Your task to perform on an android device: Show the shopping cart on costco.com. Search for razer huntsman on costco.com, select the first entry, and add it to the cart. Image 0: 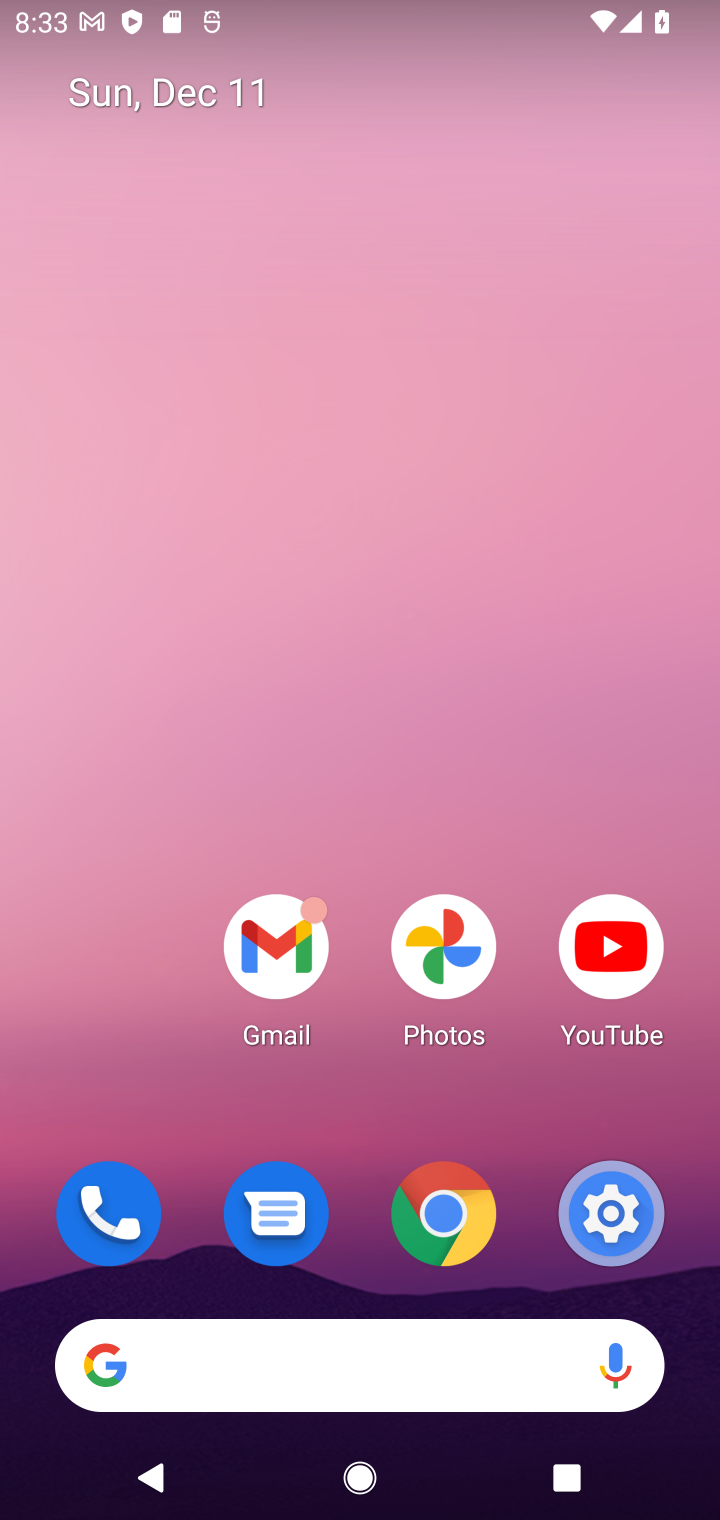
Step 0: click (320, 1372)
Your task to perform on an android device: Show the shopping cart on costco.com. Search for razer huntsman on costco.com, select the first entry, and add it to the cart. Image 1: 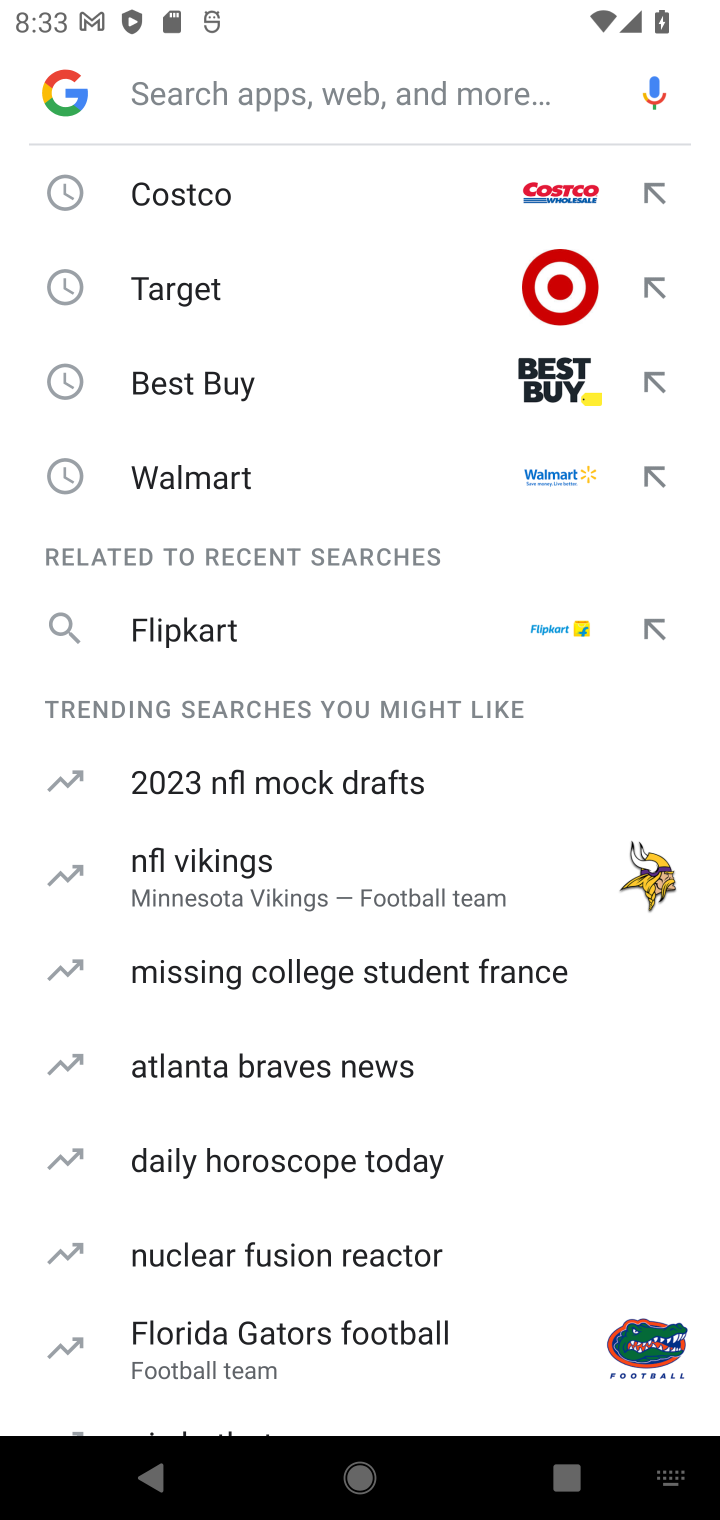
Step 1: type "costco.com"
Your task to perform on an android device: Show the shopping cart on costco.com. Search for razer huntsman on costco.com, select the first entry, and add it to the cart. Image 2: 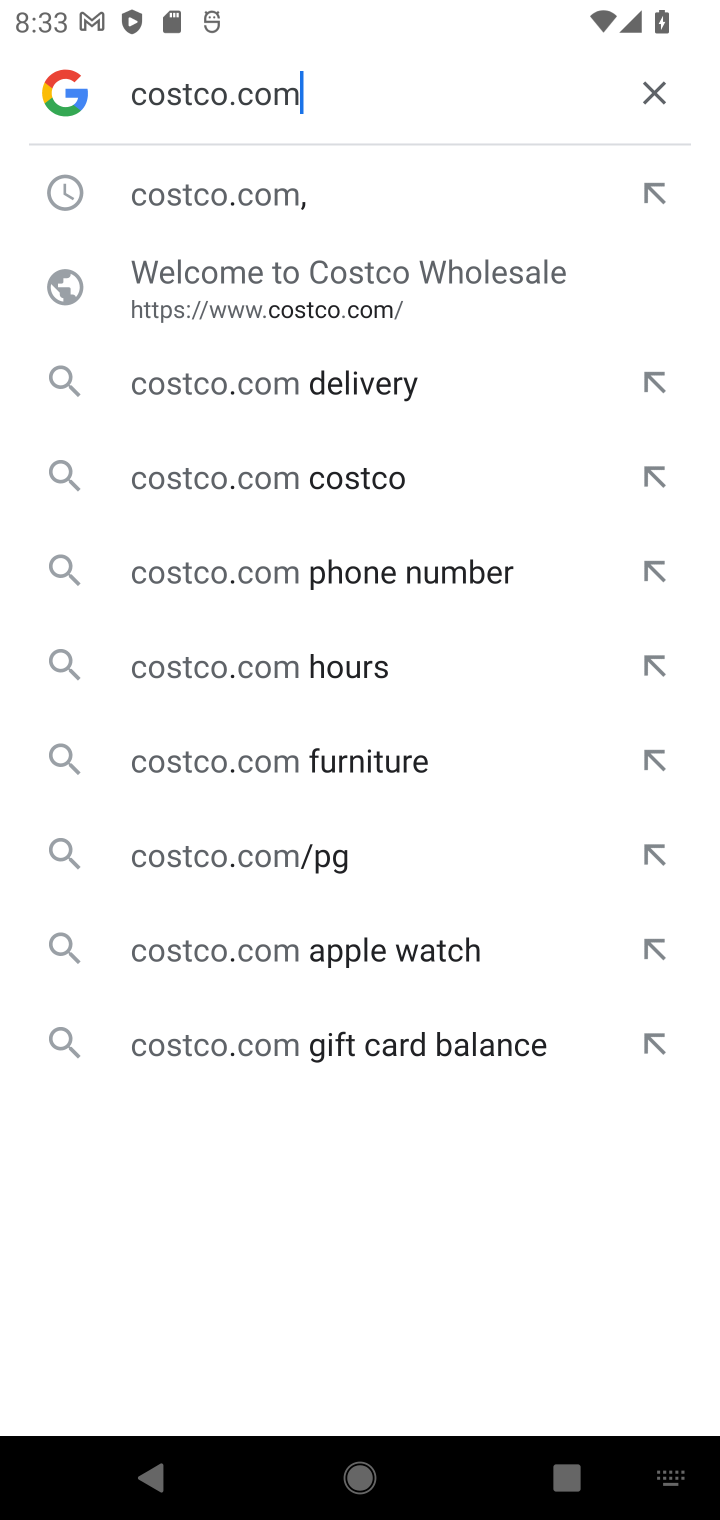
Step 2: click (296, 203)
Your task to perform on an android device: Show the shopping cart on costco.com. Search for razer huntsman on costco.com, select the first entry, and add it to the cart. Image 3: 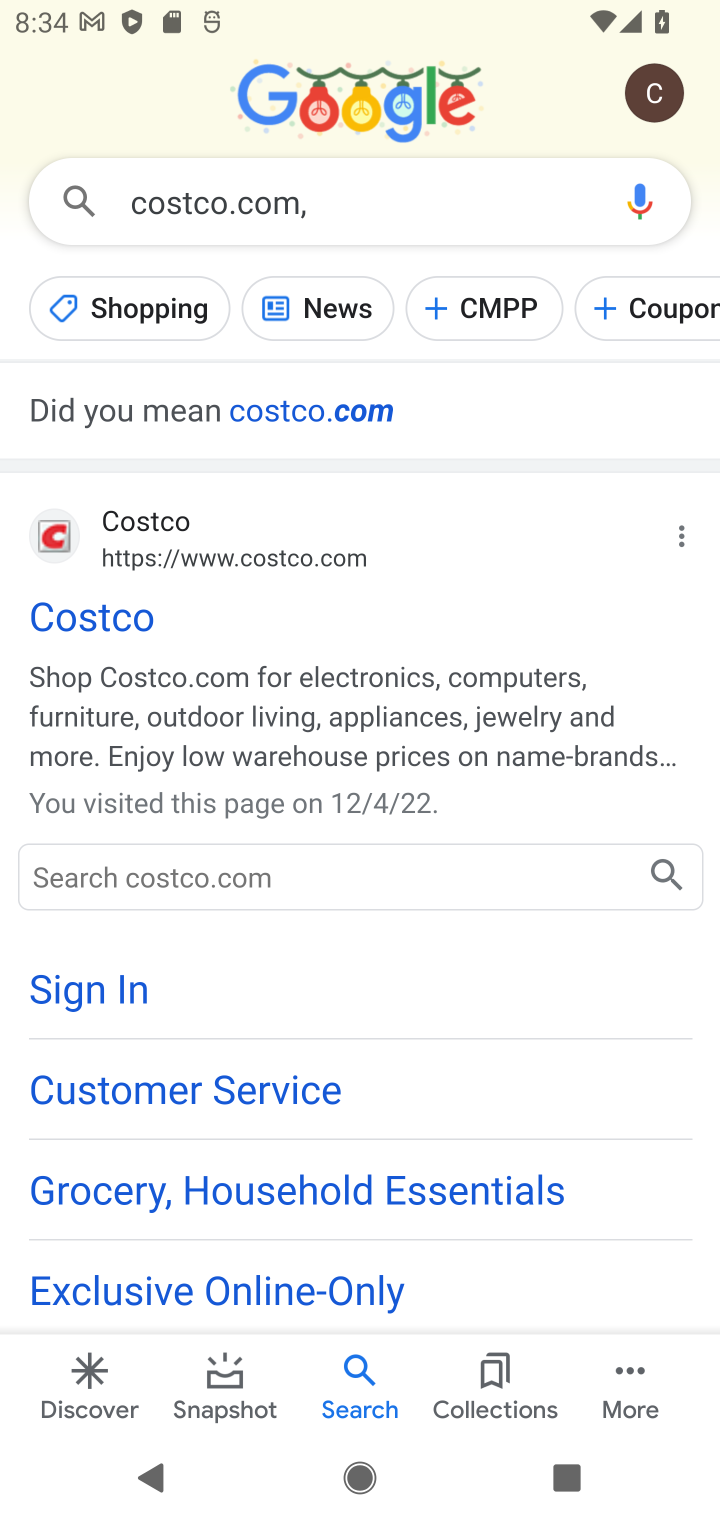
Step 3: click (93, 603)
Your task to perform on an android device: Show the shopping cart on costco.com. Search for razer huntsman on costco.com, select the first entry, and add it to the cart. Image 4: 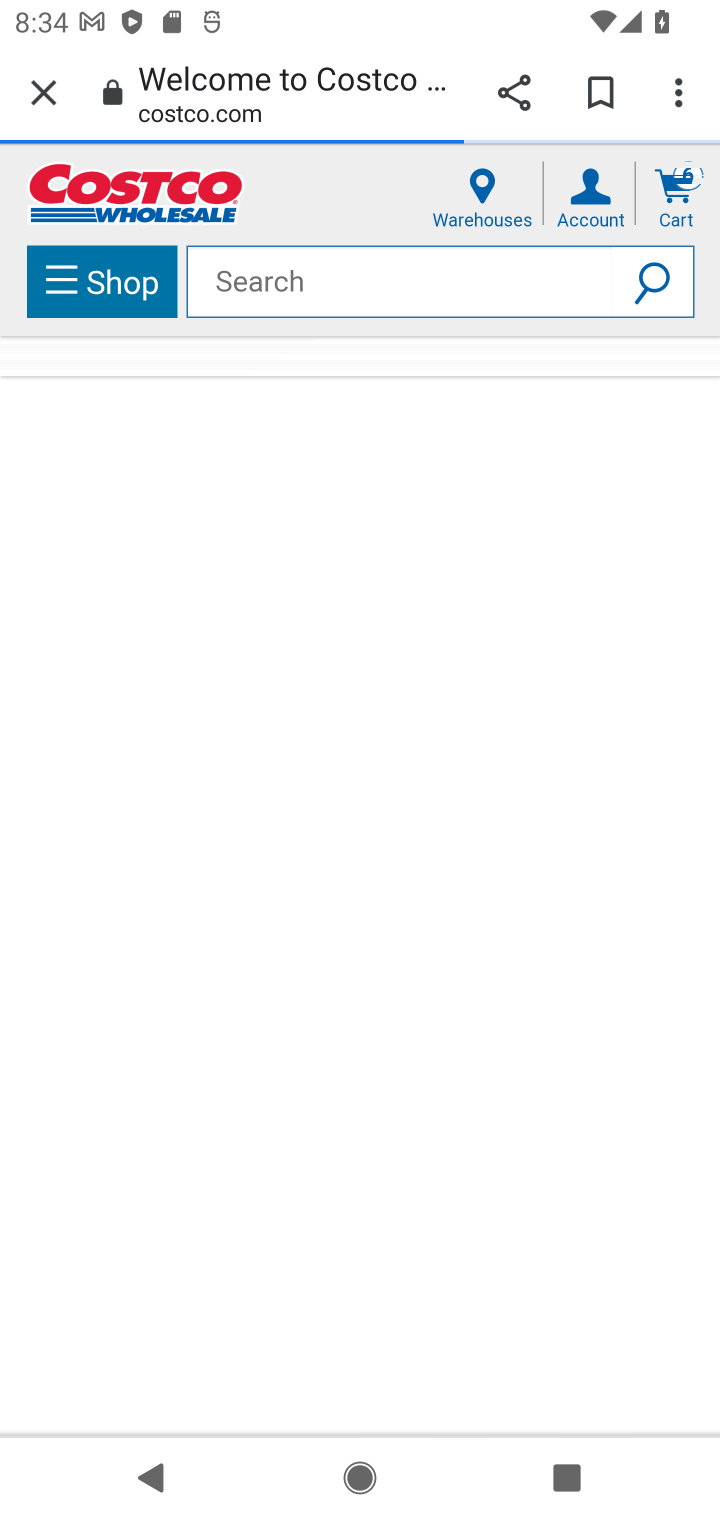
Step 4: click (377, 301)
Your task to perform on an android device: Show the shopping cart on costco.com. Search for razer huntsman on costco.com, select the first entry, and add it to the cart. Image 5: 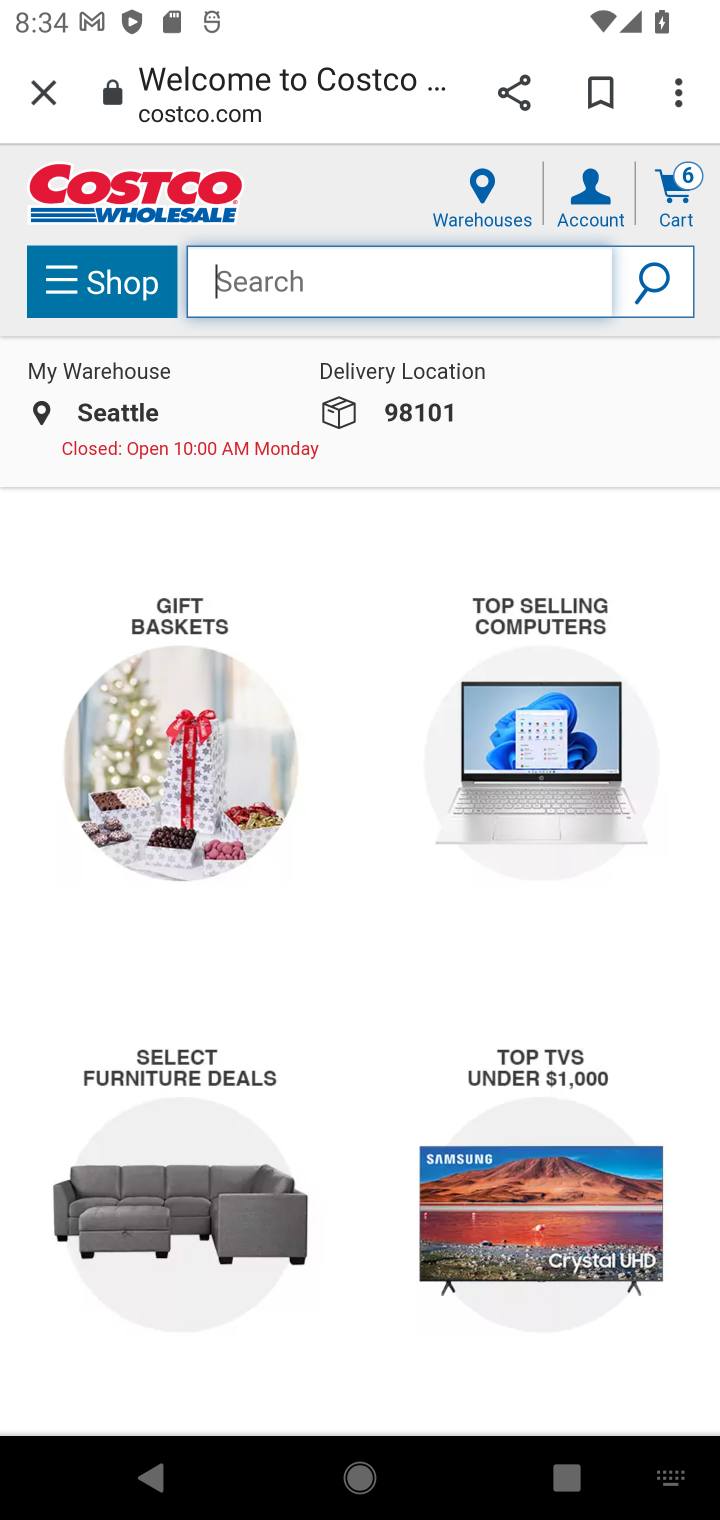
Step 5: type "razer huntsman"
Your task to perform on an android device: Show the shopping cart on costco.com. Search for razer huntsman on costco.com, select the first entry, and add it to the cart. Image 6: 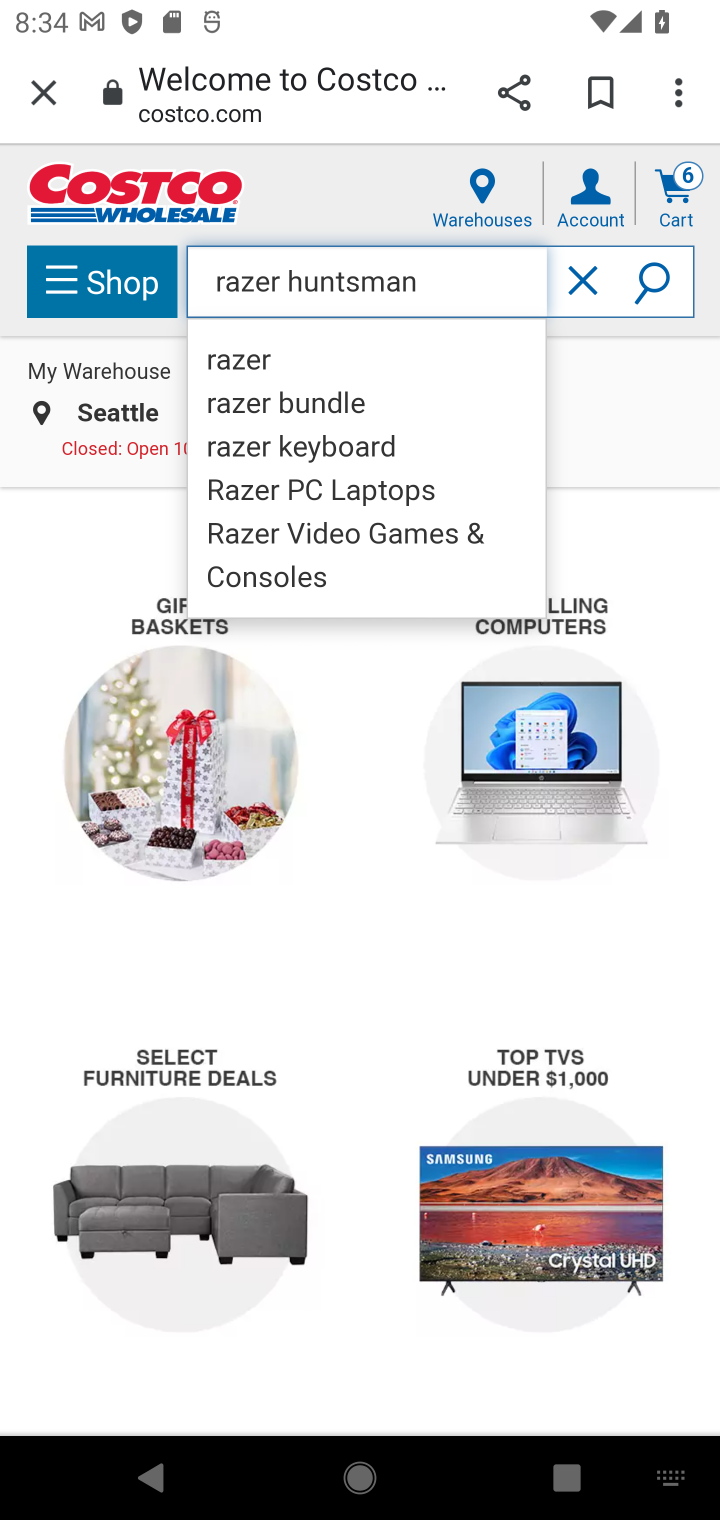
Step 6: click (635, 299)
Your task to perform on an android device: Show the shopping cart on costco.com. Search for razer huntsman on costco.com, select the first entry, and add it to the cart. Image 7: 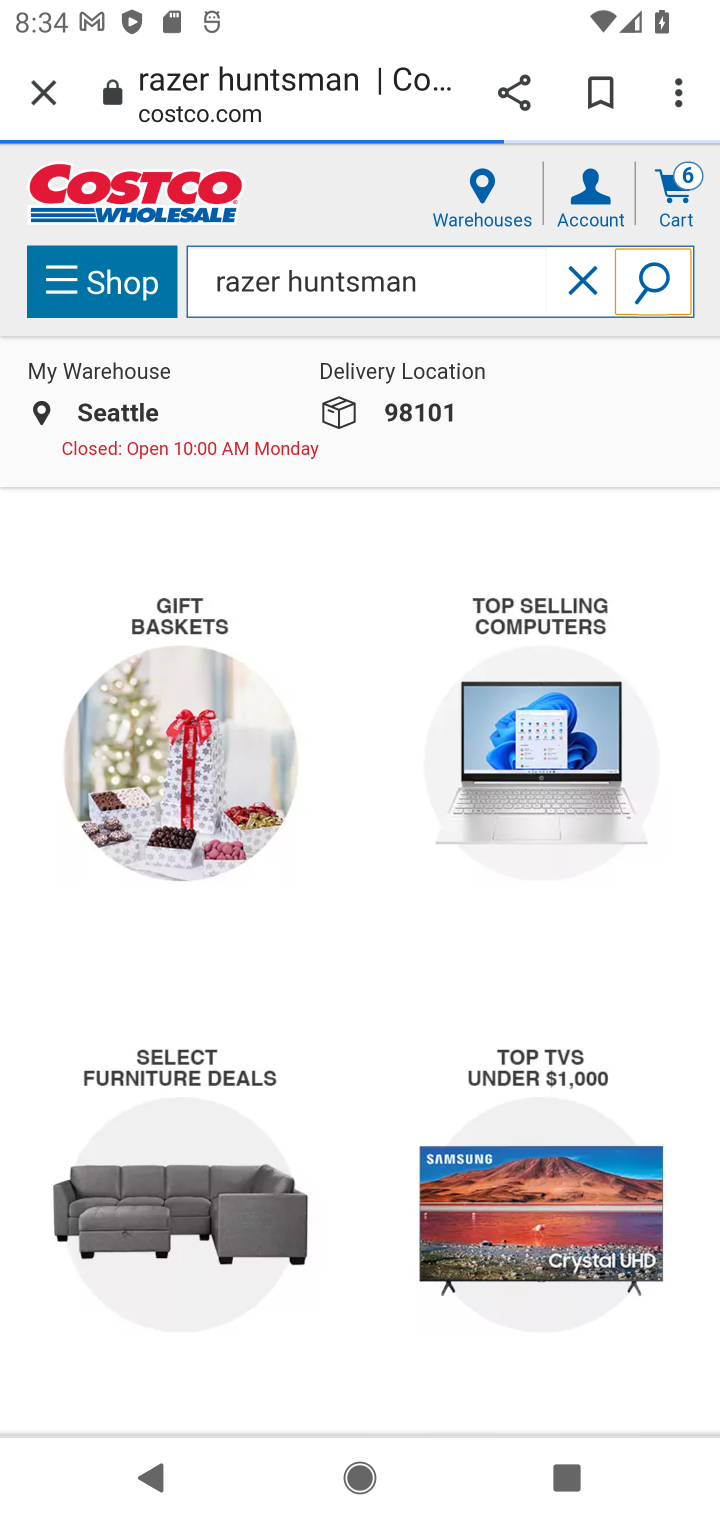
Step 7: task complete